Your task to perform on an android device: Open settings on Google Maps Image 0: 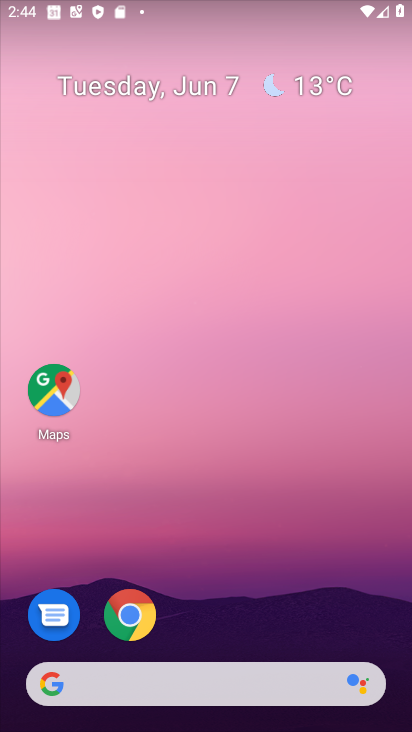
Step 0: click (60, 392)
Your task to perform on an android device: Open settings on Google Maps Image 1: 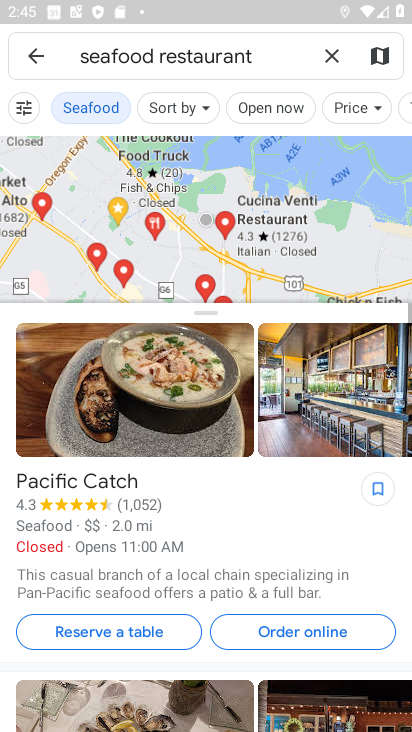
Step 1: click (30, 56)
Your task to perform on an android device: Open settings on Google Maps Image 2: 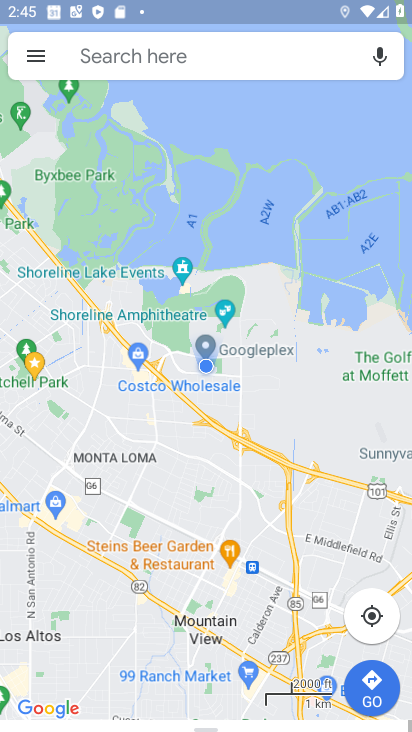
Step 2: click (30, 56)
Your task to perform on an android device: Open settings on Google Maps Image 3: 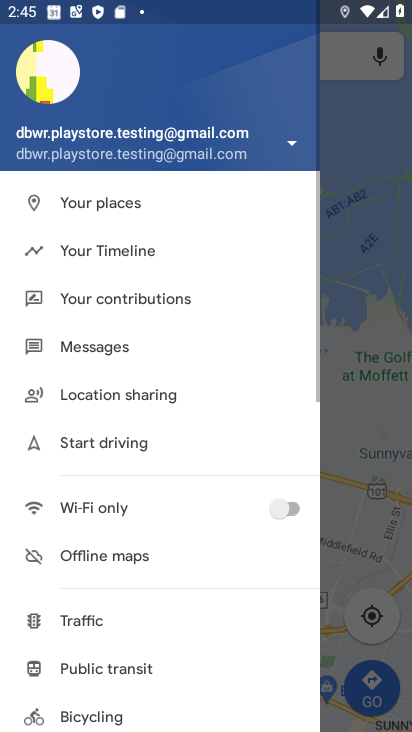
Step 3: drag from (91, 615) to (209, 201)
Your task to perform on an android device: Open settings on Google Maps Image 4: 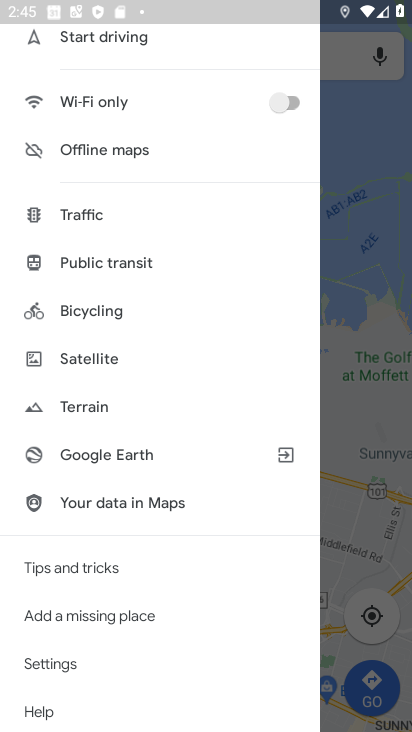
Step 4: drag from (103, 630) to (207, 392)
Your task to perform on an android device: Open settings on Google Maps Image 5: 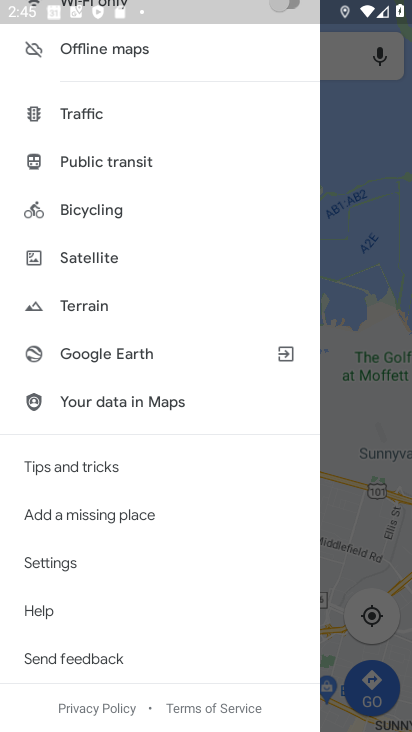
Step 5: click (96, 570)
Your task to perform on an android device: Open settings on Google Maps Image 6: 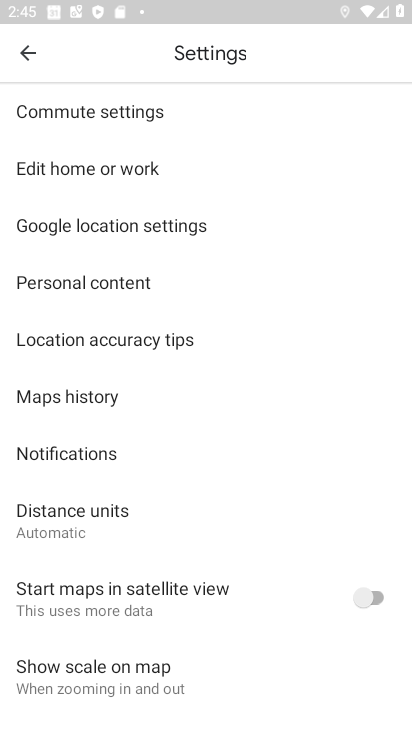
Step 6: task complete